Your task to perform on an android device: turn pop-ups off in chrome Image 0: 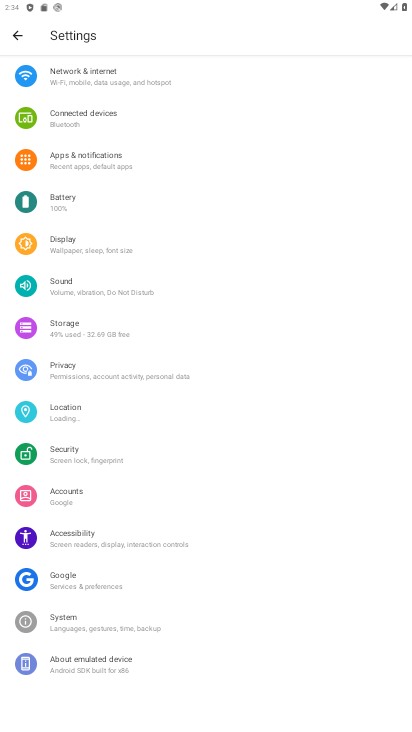
Step 0: drag from (252, 645) to (121, 238)
Your task to perform on an android device: turn pop-ups off in chrome Image 1: 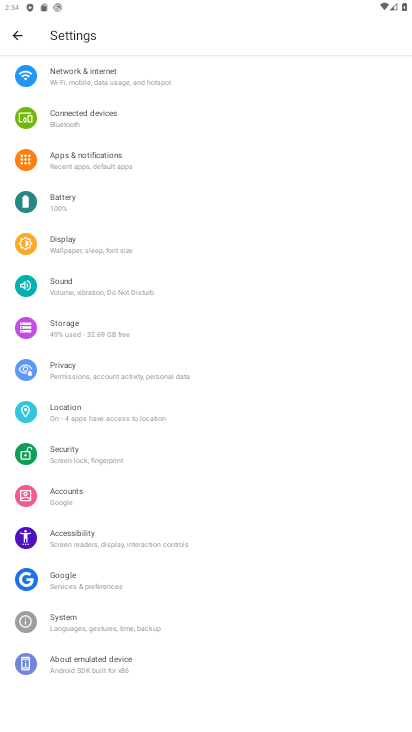
Step 1: press home button
Your task to perform on an android device: turn pop-ups off in chrome Image 2: 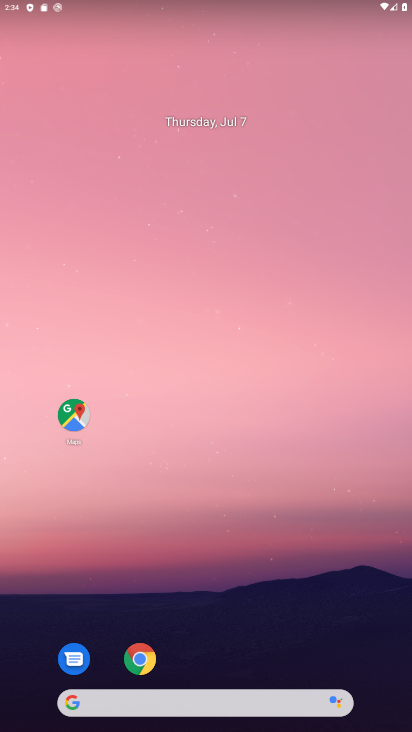
Step 2: click (145, 663)
Your task to perform on an android device: turn pop-ups off in chrome Image 3: 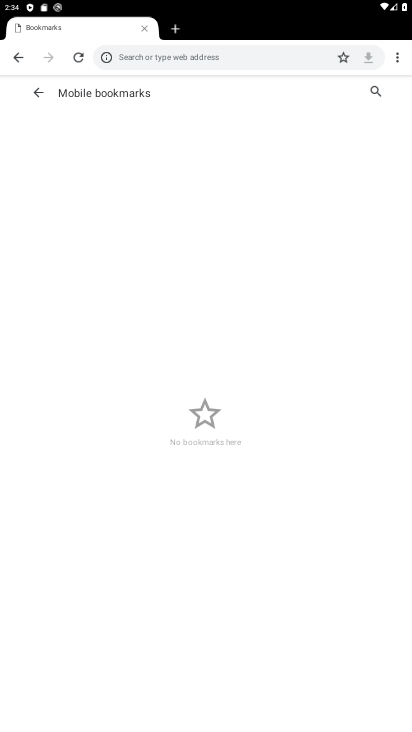
Step 3: click (397, 55)
Your task to perform on an android device: turn pop-ups off in chrome Image 4: 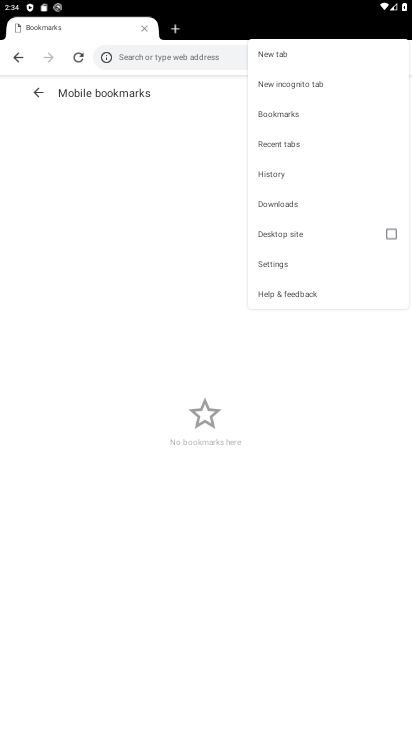
Step 4: click (299, 265)
Your task to perform on an android device: turn pop-ups off in chrome Image 5: 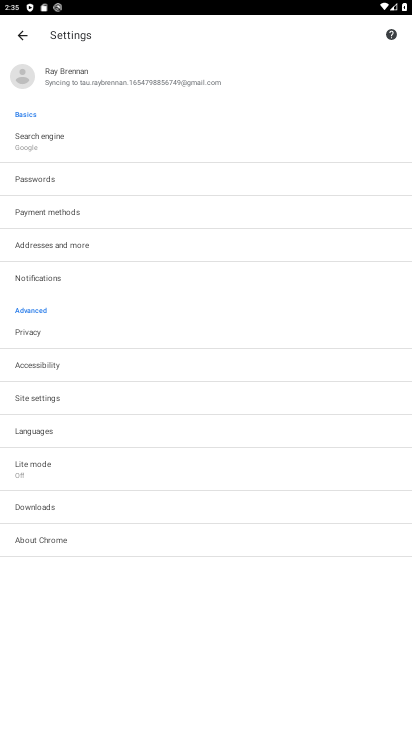
Step 5: click (97, 391)
Your task to perform on an android device: turn pop-ups off in chrome Image 6: 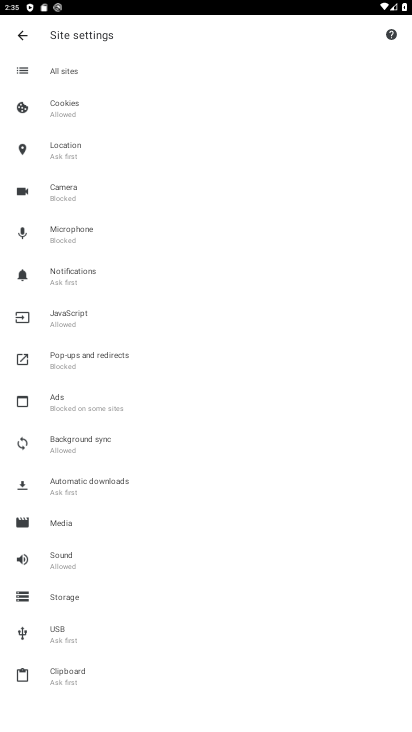
Step 6: click (130, 358)
Your task to perform on an android device: turn pop-ups off in chrome Image 7: 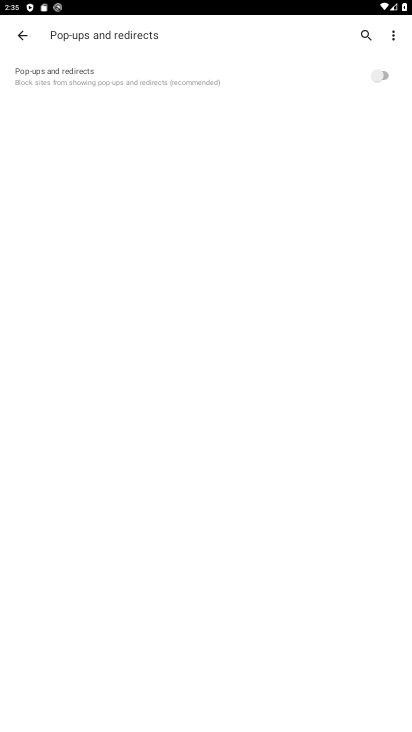
Step 7: task complete